Your task to perform on an android device: turn on sleep mode Image 0: 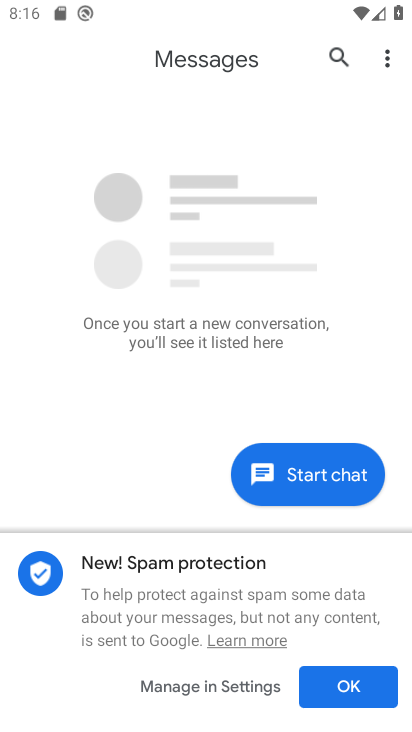
Step 0: press home button
Your task to perform on an android device: turn on sleep mode Image 1: 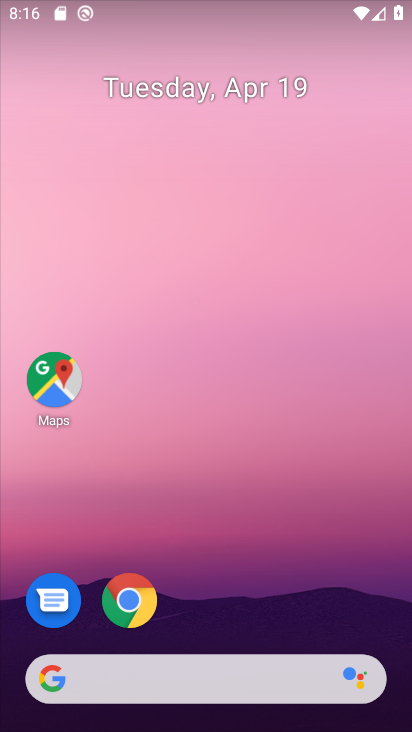
Step 1: drag from (358, 601) to (341, 99)
Your task to perform on an android device: turn on sleep mode Image 2: 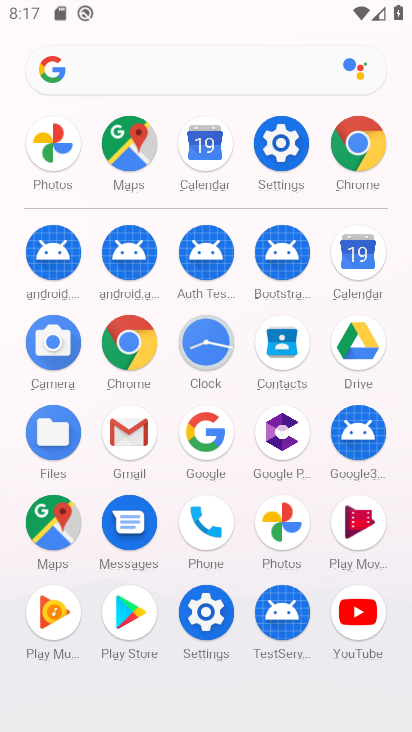
Step 2: click (293, 153)
Your task to perform on an android device: turn on sleep mode Image 3: 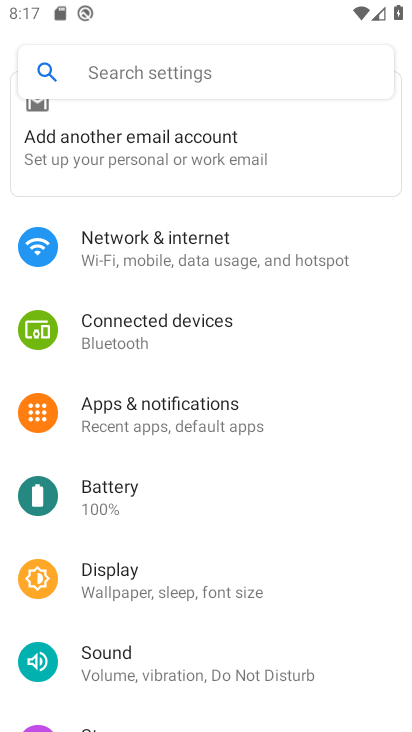
Step 3: drag from (359, 636) to (363, 350)
Your task to perform on an android device: turn on sleep mode Image 4: 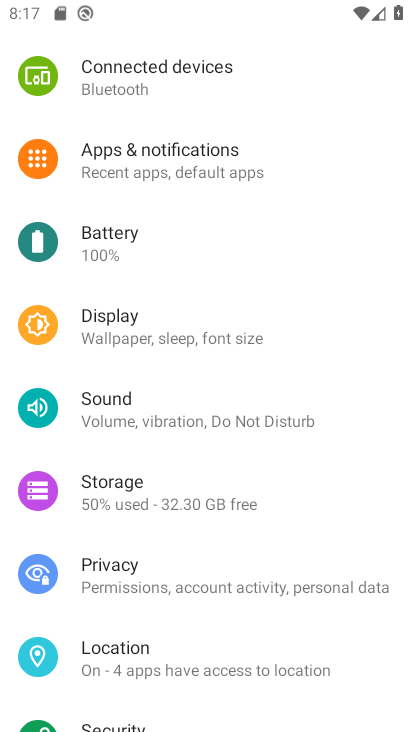
Step 4: drag from (375, 621) to (372, 393)
Your task to perform on an android device: turn on sleep mode Image 5: 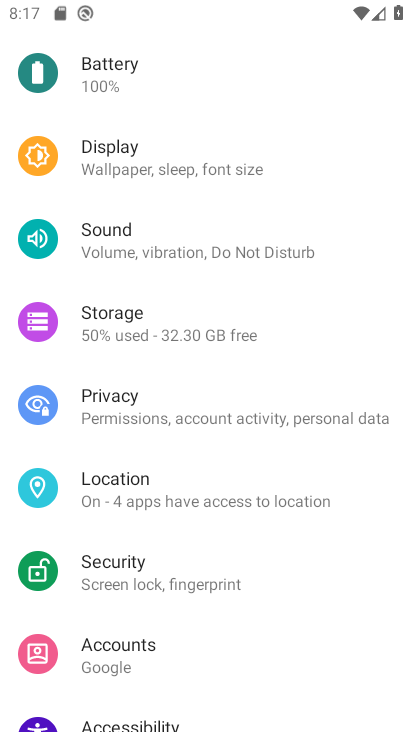
Step 5: drag from (370, 451) to (369, 255)
Your task to perform on an android device: turn on sleep mode Image 6: 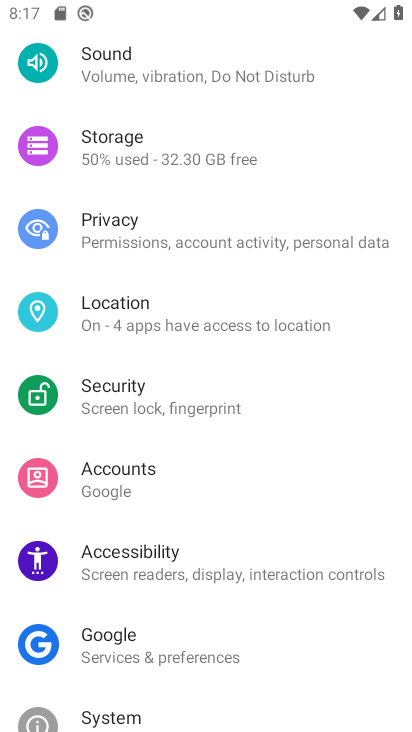
Step 6: drag from (332, 653) to (347, 382)
Your task to perform on an android device: turn on sleep mode Image 7: 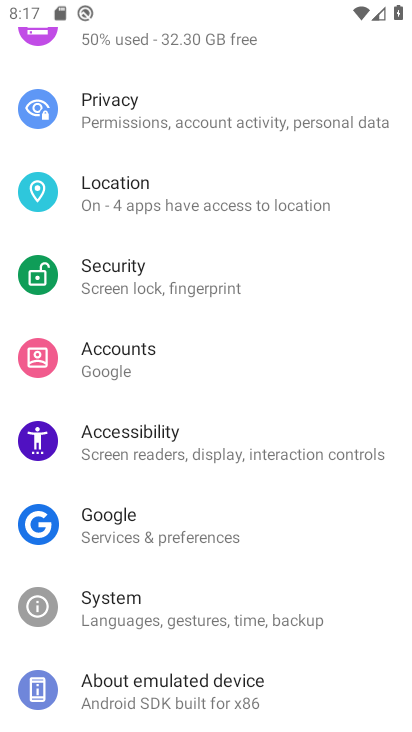
Step 7: drag from (337, 329) to (343, 624)
Your task to perform on an android device: turn on sleep mode Image 8: 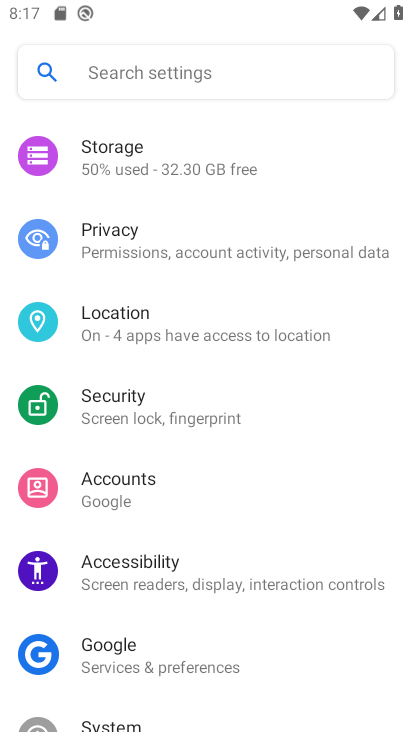
Step 8: drag from (373, 321) to (364, 573)
Your task to perform on an android device: turn on sleep mode Image 9: 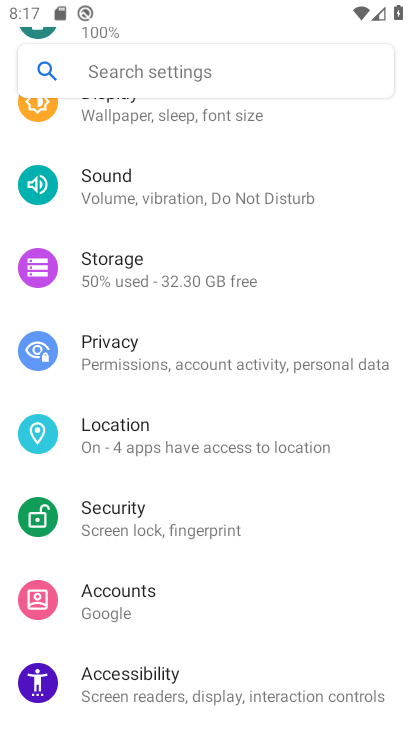
Step 9: drag from (364, 297) to (345, 577)
Your task to perform on an android device: turn on sleep mode Image 10: 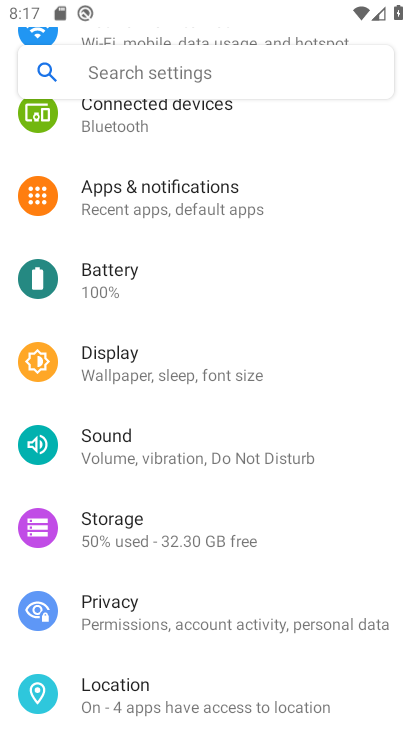
Step 10: click (182, 364)
Your task to perform on an android device: turn on sleep mode Image 11: 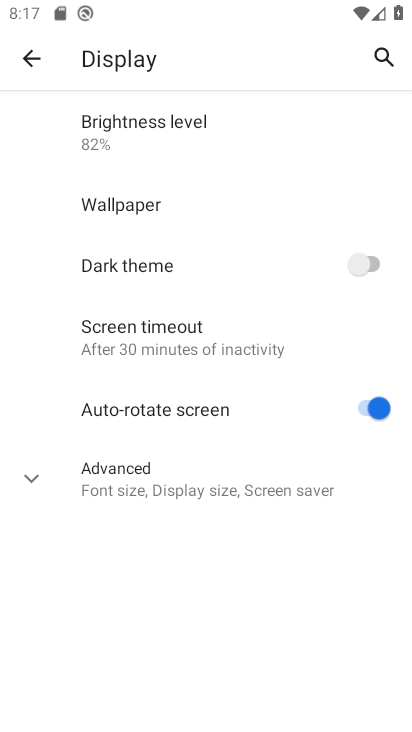
Step 11: click (250, 484)
Your task to perform on an android device: turn on sleep mode Image 12: 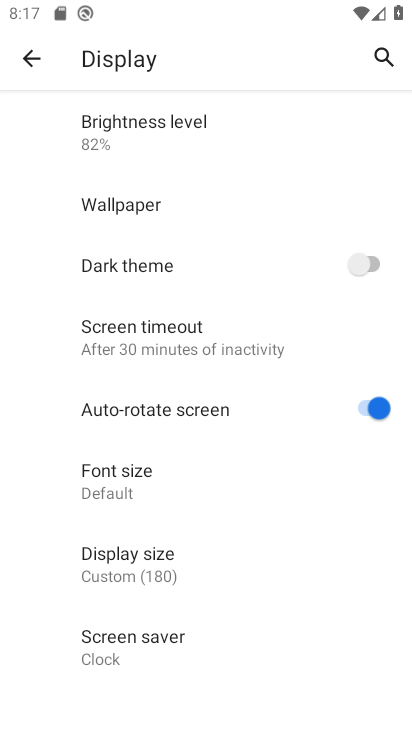
Step 12: task complete